Your task to perform on an android device: delete the emails in spam in the gmail app Image 0: 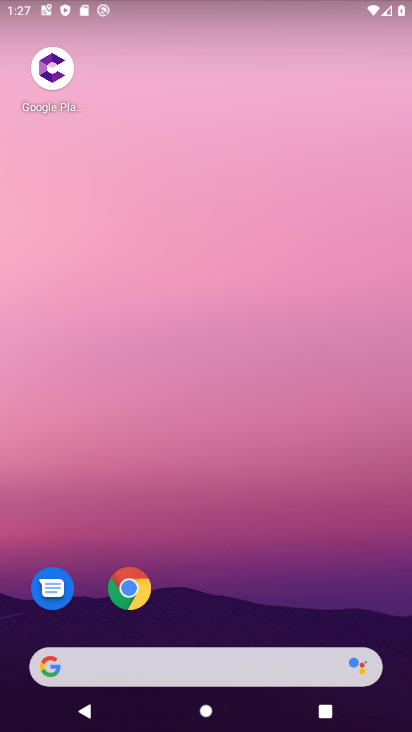
Step 0: drag from (238, 570) to (265, 69)
Your task to perform on an android device: delete the emails in spam in the gmail app Image 1: 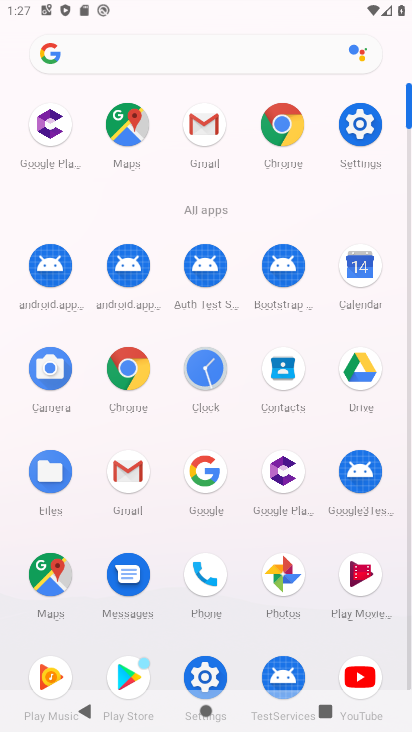
Step 1: click (211, 115)
Your task to perform on an android device: delete the emails in spam in the gmail app Image 2: 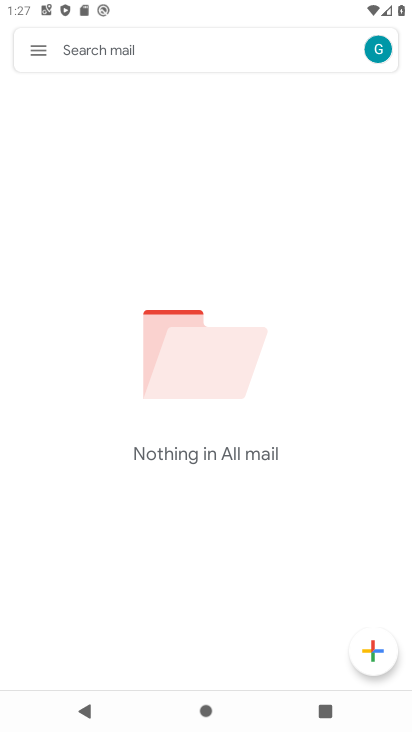
Step 2: click (42, 54)
Your task to perform on an android device: delete the emails in spam in the gmail app Image 3: 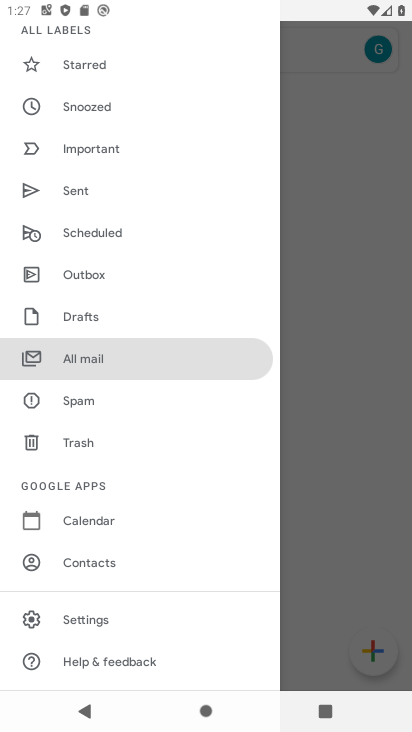
Step 3: click (83, 402)
Your task to perform on an android device: delete the emails in spam in the gmail app Image 4: 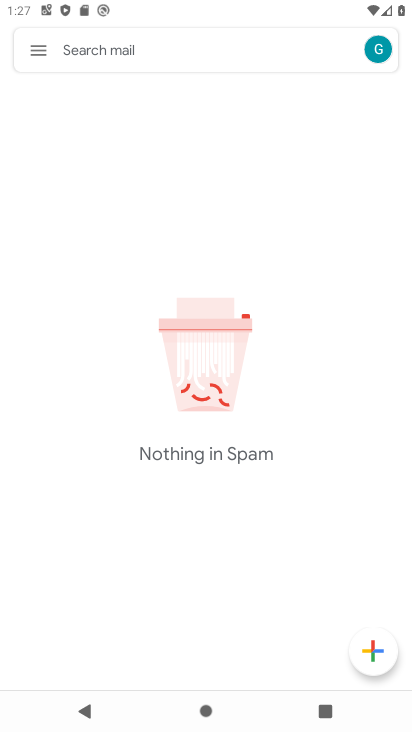
Step 4: task complete